Your task to perform on an android device: turn off picture-in-picture Image 0: 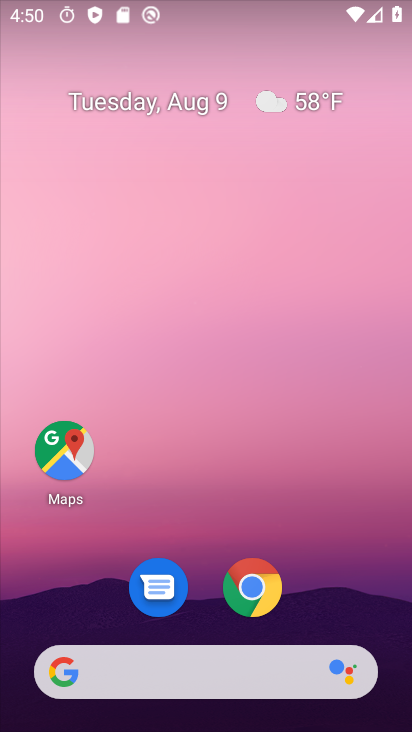
Step 0: click (240, 593)
Your task to perform on an android device: turn off picture-in-picture Image 1: 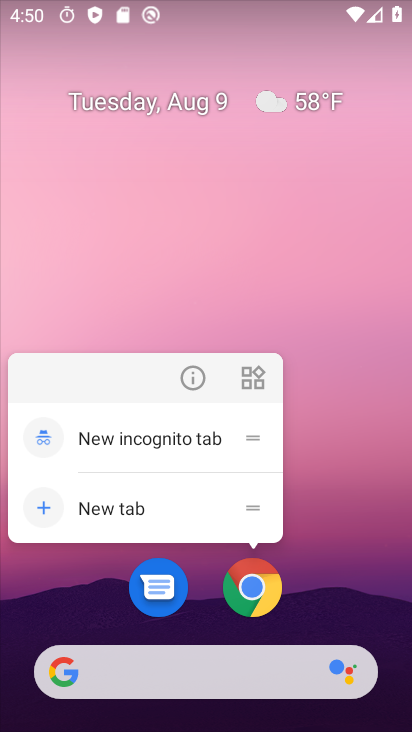
Step 1: click (196, 374)
Your task to perform on an android device: turn off picture-in-picture Image 2: 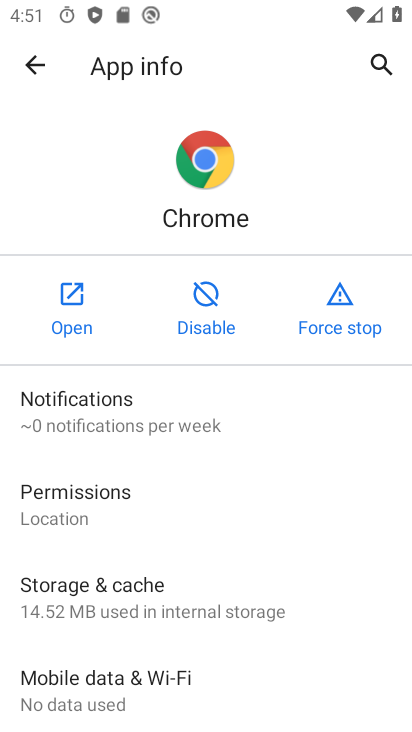
Step 2: drag from (236, 592) to (141, 32)
Your task to perform on an android device: turn off picture-in-picture Image 3: 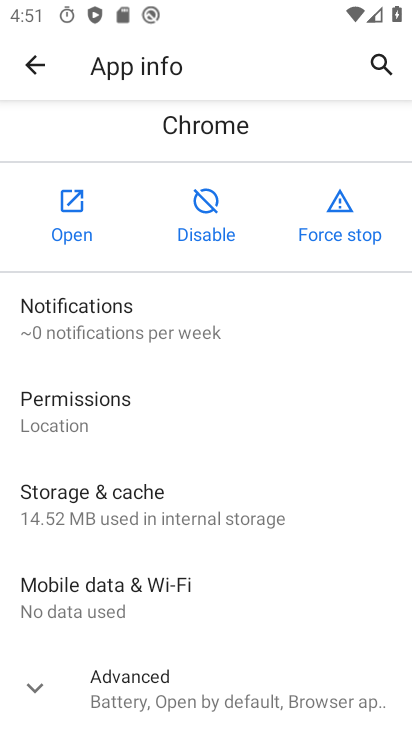
Step 3: click (175, 714)
Your task to perform on an android device: turn off picture-in-picture Image 4: 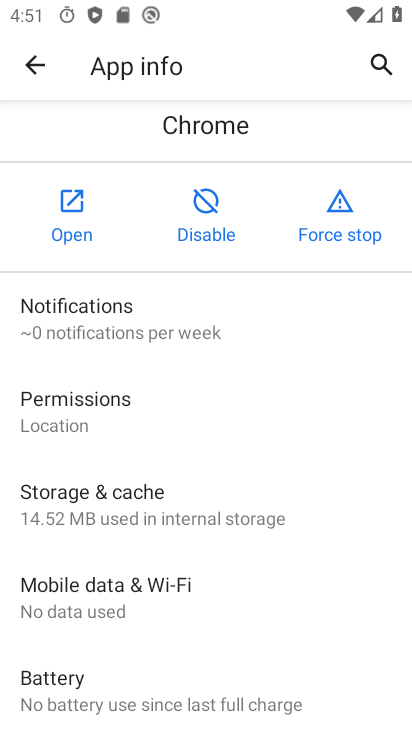
Step 4: drag from (156, 661) to (129, 231)
Your task to perform on an android device: turn off picture-in-picture Image 5: 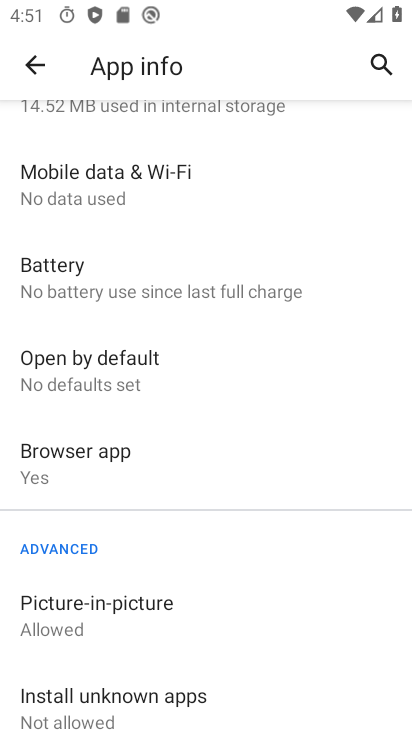
Step 5: click (160, 606)
Your task to perform on an android device: turn off picture-in-picture Image 6: 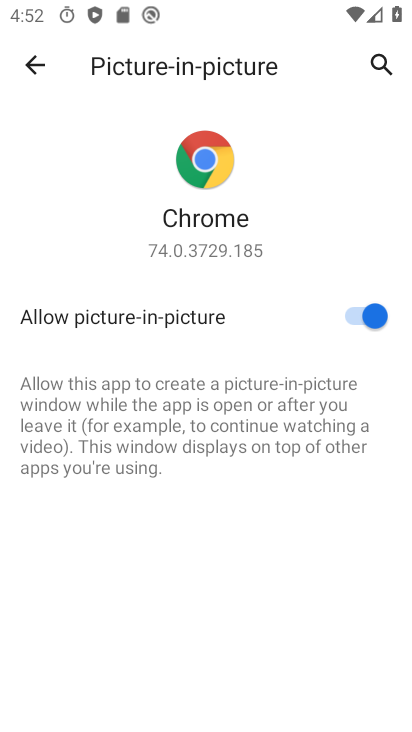
Step 6: click (366, 308)
Your task to perform on an android device: turn off picture-in-picture Image 7: 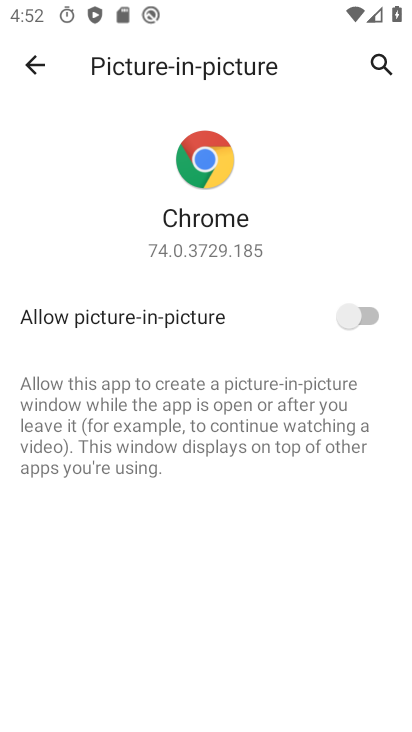
Step 7: task complete